Your task to perform on an android device: What's the weather today? Image 0: 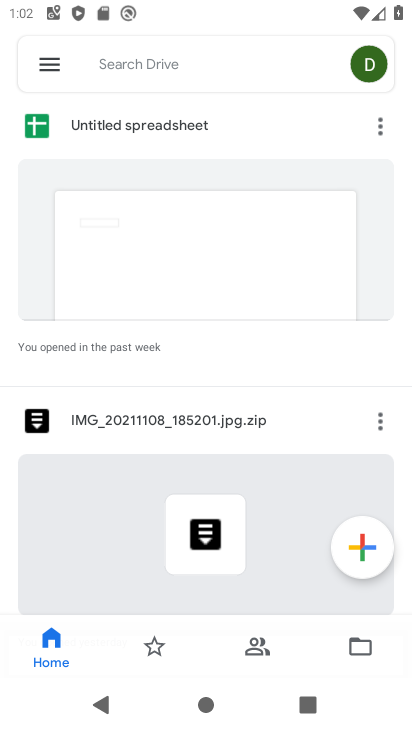
Step 0: press home button
Your task to perform on an android device: What's the weather today? Image 1: 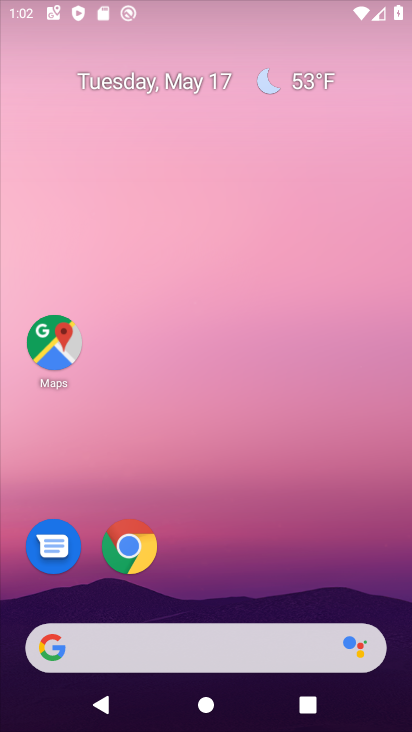
Step 1: drag from (224, 577) to (195, 87)
Your task to perform on an android device: What's the weather today? Image 2: 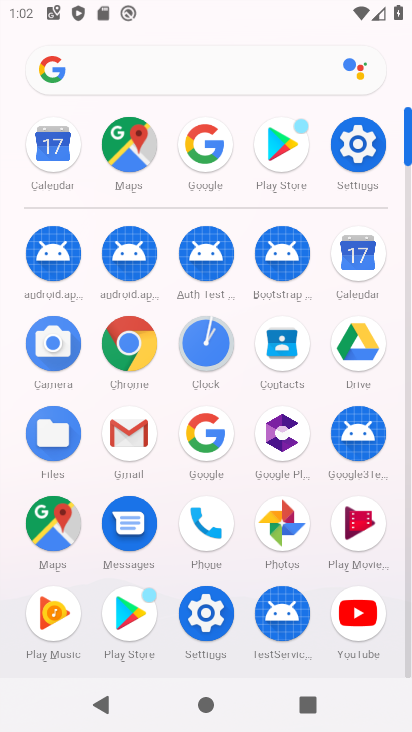
Step 2: click (203, 449)
Your task to perform on an android device: What's the weather today? Image 3: 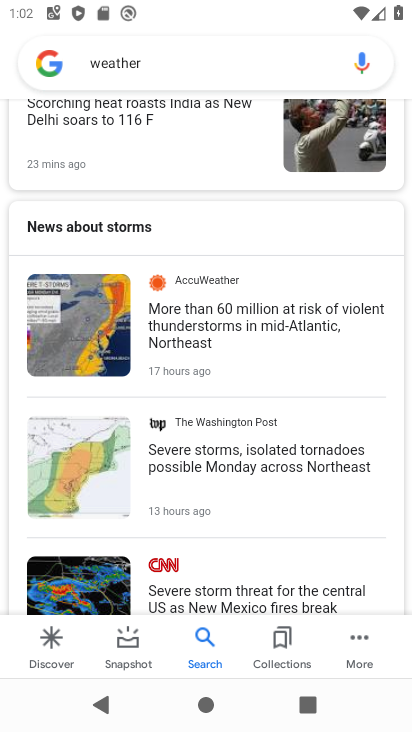
Step 3: drag from (181, 180) to (226, 541)
Your task to perform on an android device: What's the weather today? Image 4: 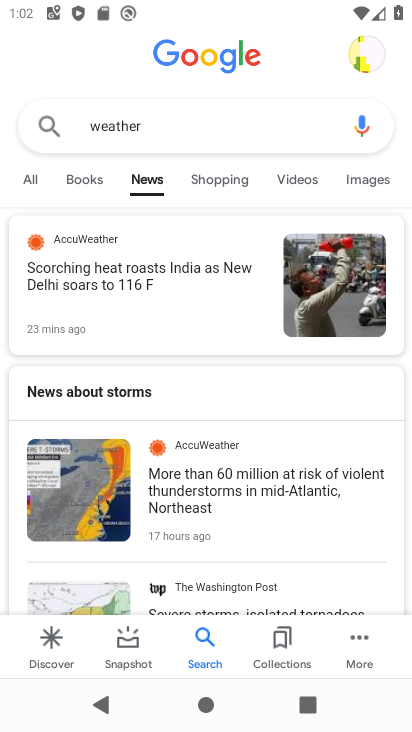
Step 4: click (27, 173)
Your task to perform on an android device: What's the weather today? Image 5: 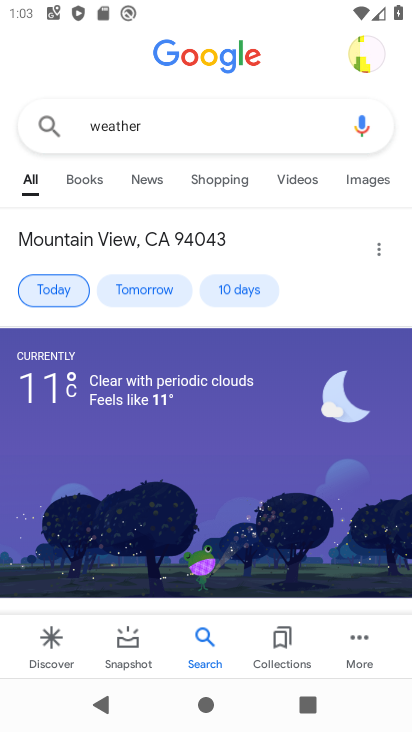
Step 5: task complete